Your task to perform on an android device: turn off notifications in google photos Image 0: 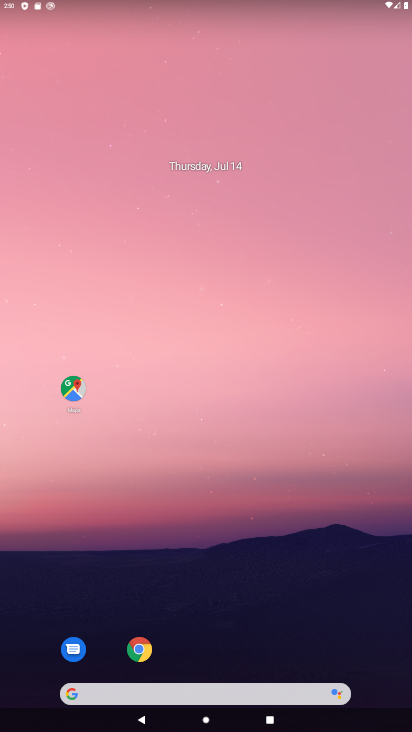
Step 0: drag from (198, 659) to (256, 204)
Your task to perform on an android device: turn off notifications in google photos Image 1: 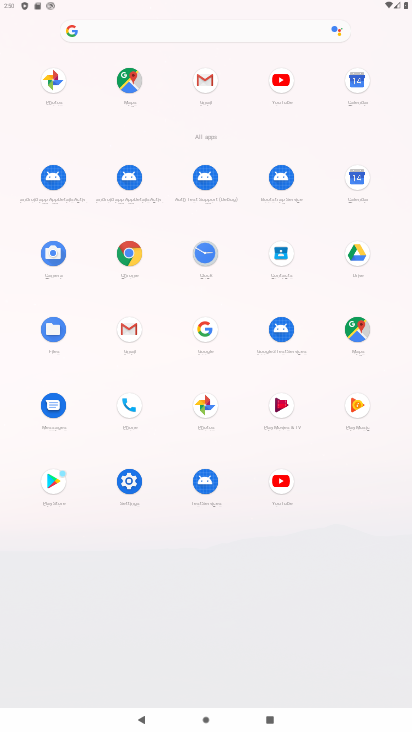
Step 1: click (203, 406)
Your task to perform on an android device: turn off notifications in google photos Image 2: 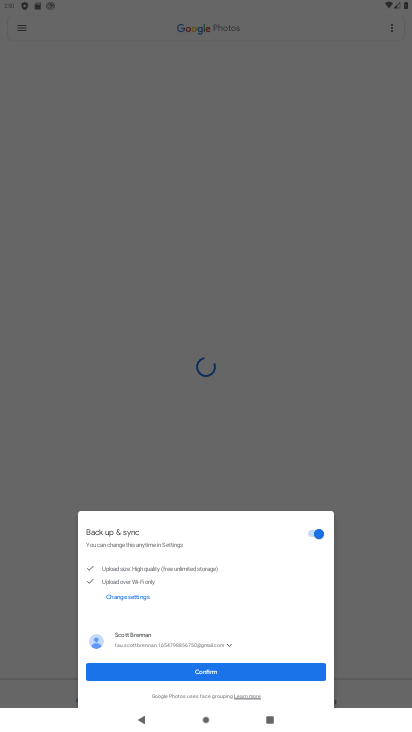
Step 2: click (215, 671)
Your task to perform on an android device: turn off notifications in google photos Image 3: 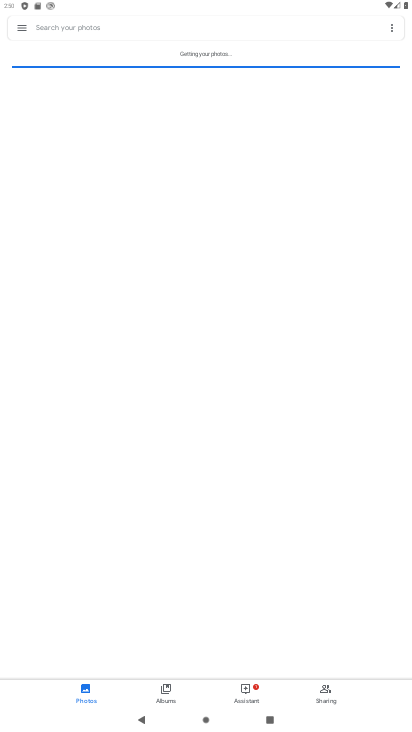
Step 3: click (25, 31)
Your task to perform on an android device: turn off notifications in google photos Image 4: 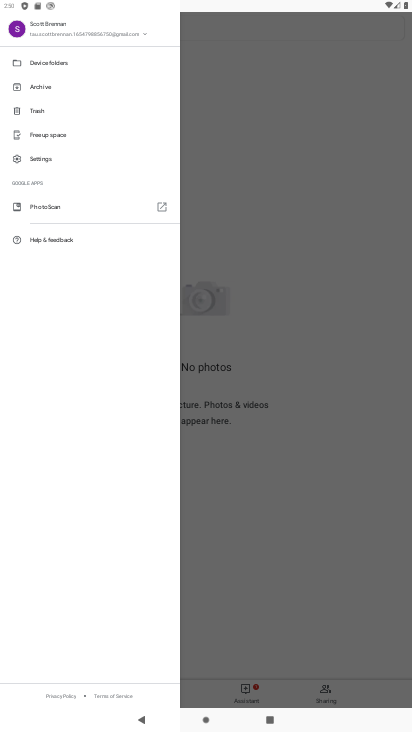
Step 4: click (41, 155)
Your task to perform on an android device: turn off notifications in google photos Image 5: 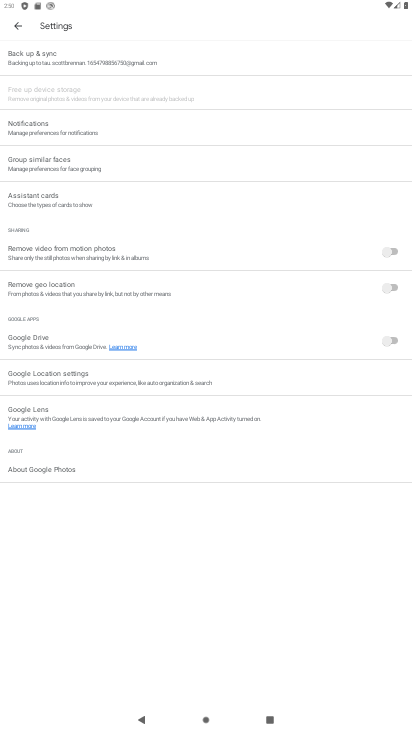
Step 5: click (46, 129)
Your task to perform on an android device: turn off notifications in google photos Image 6: 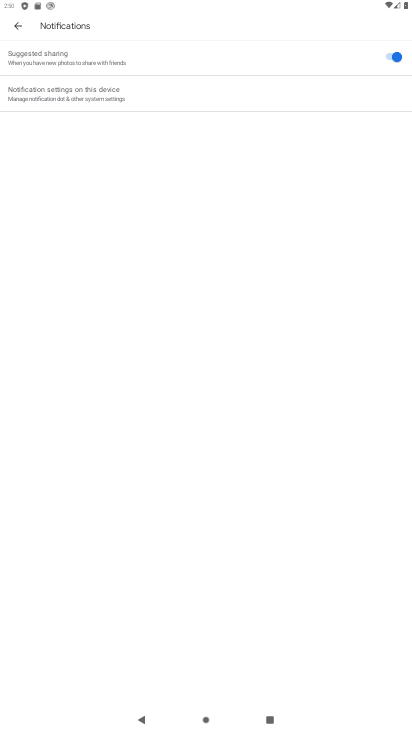
Step 6: click (393, 58)
Your task to perform on an android device: turn off notifications in google photos Image 7: 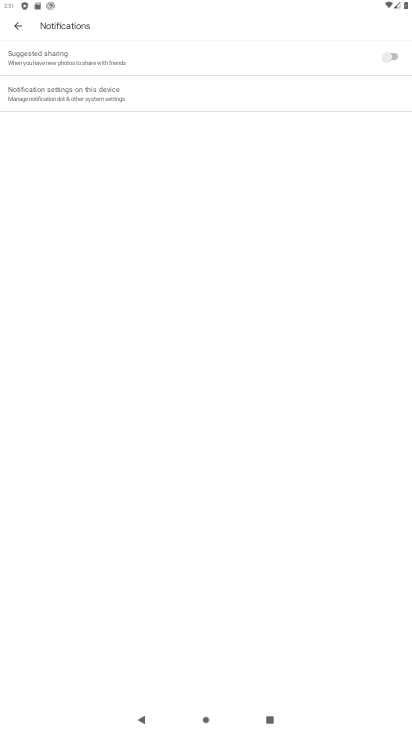
Step 7: task complete